Your task to perform on an android device: turn smart compose on in the gmail app Image 0: 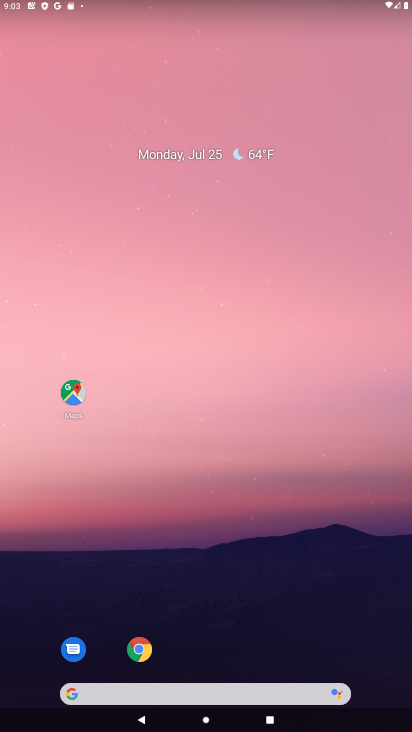
Step 0: drag from (286, 659) to (207, 40)
Your task to perform on an android device: turn smart compose on in the gmail app Image 1: 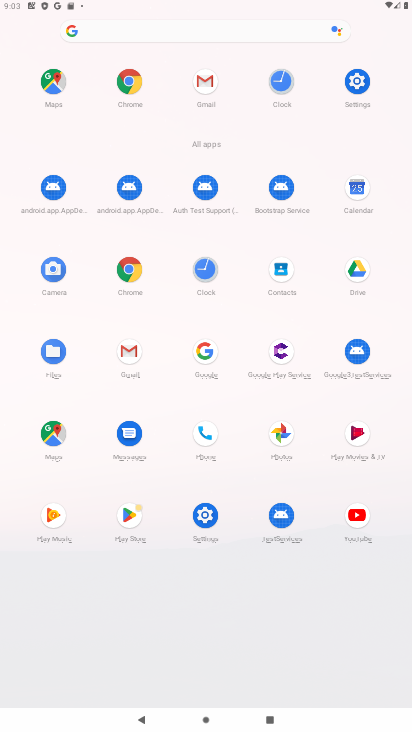
Step 1: click (133, 352)
Your task to perform on an android device: turn smart compose on in the gmail app Image 2: 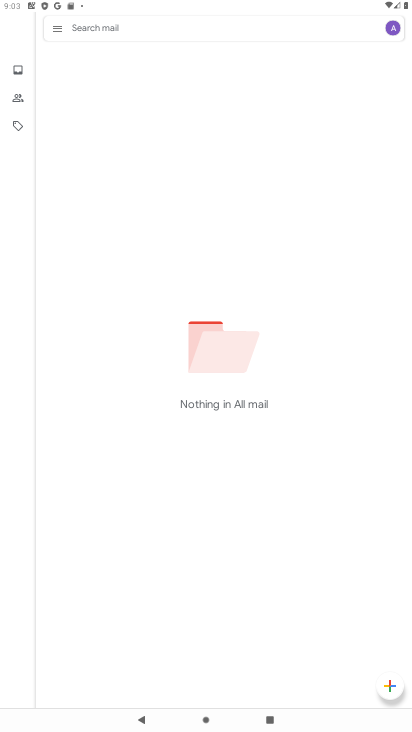
Step 2: click (60, 26)
Your task to perform on an android device: turn smart compose on in the gmail app Image 3: 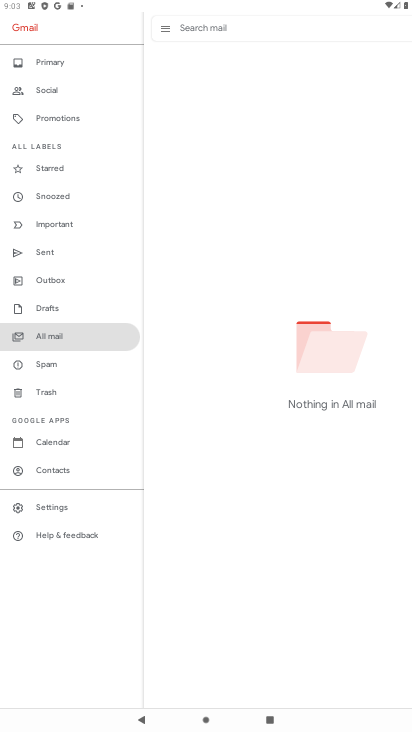
Step 3: click (61, 500)
Your task to perform on an android device: turn smart compose on in the gmail app Image 4: 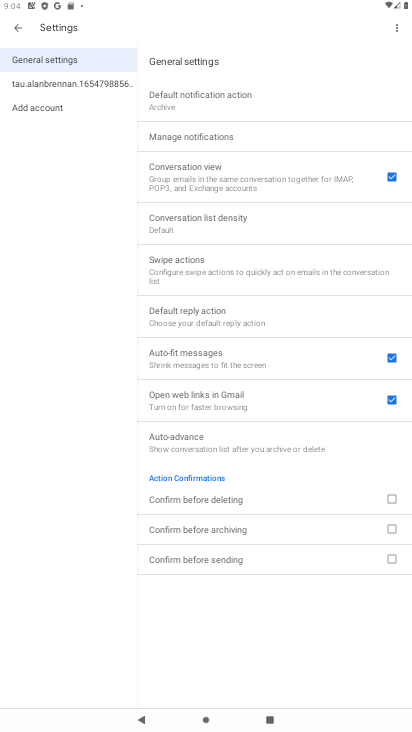
Step 4: click (26, 79)
Your task to perform on an android device: turn smart compose on in the gmail app Image 5: 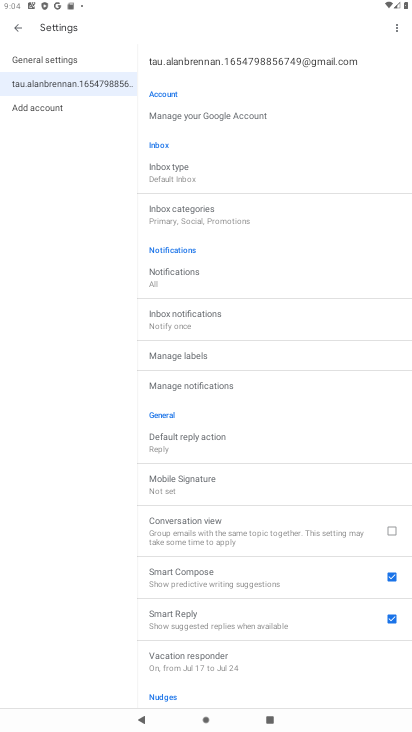
Step 5: task complete